Your task to perform on an android device: toggle airplane mode Image 0: 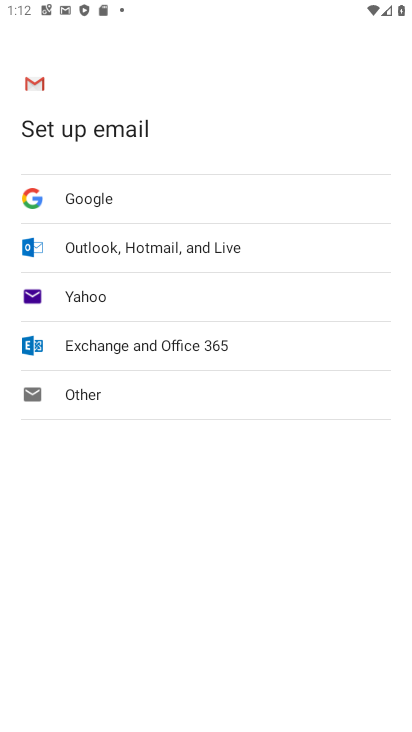
Step 0: press home button
Your task to perform on an android device: toggle airplane mode Image 1: 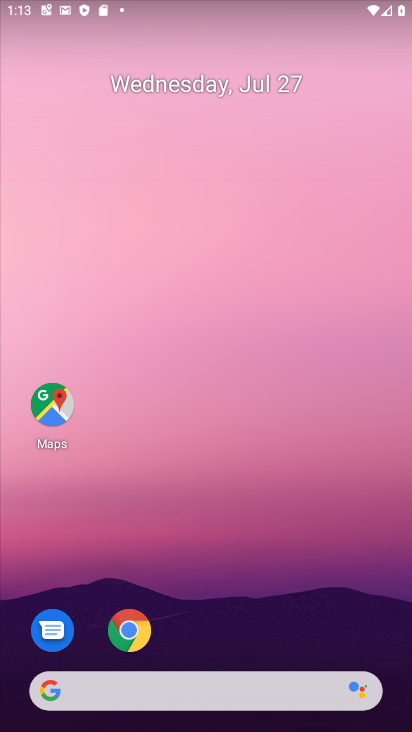
Step 1: drag from (397, 718) to (369, 39)
Your task to perform on an android device: toggle airplane mode Image 2: 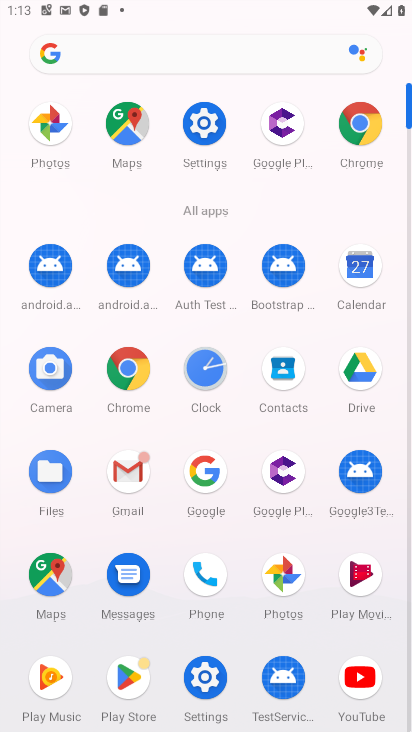
Step 2: click (200, 135)
Your task to perform on an android device: toggle airplane mode Image 3: 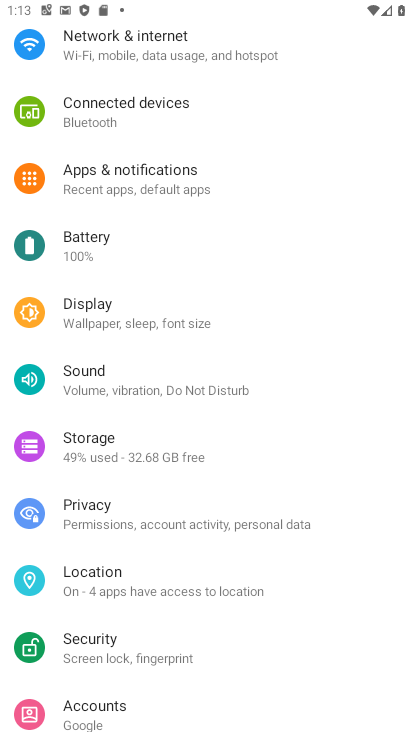
Step 3: drag from (329, 263) to (340, 437)
Your task to perform on an android device: toggle airplane mode Image 4: 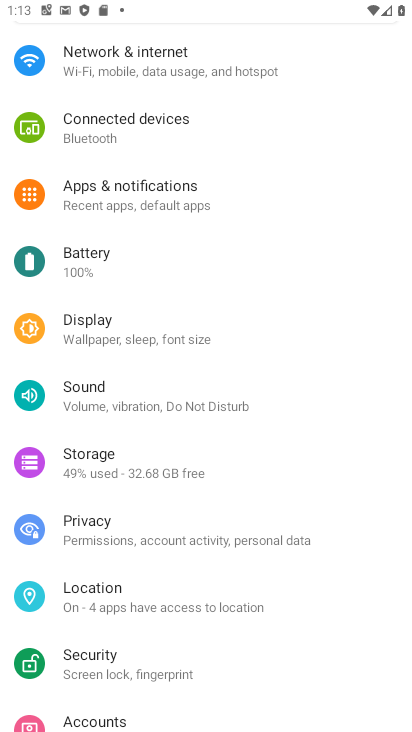
Step 4: drag from (323, 54) to (334, 475)
Your task to perform on an android device: toggle airplane mode Image 5: 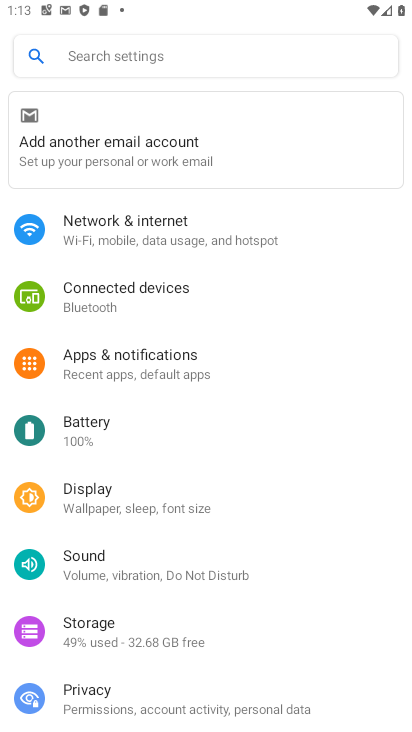
Step 5: click (139, 154)
Your task to perform on an android device: toggle airplane mode Image 6: 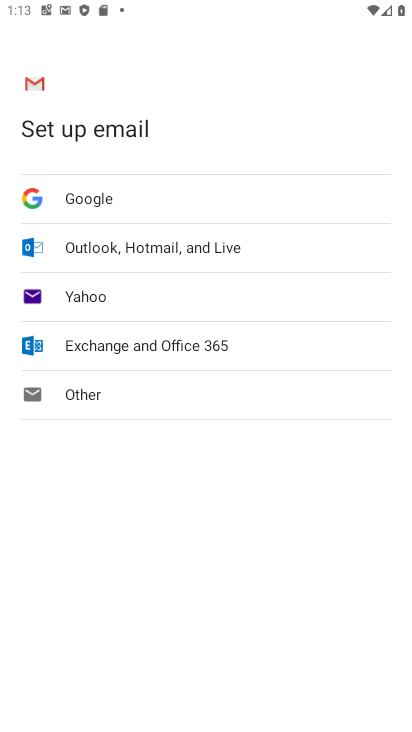
Step 6: press back button
Your task to perform on an android device: toggle airplane mode Image 7: 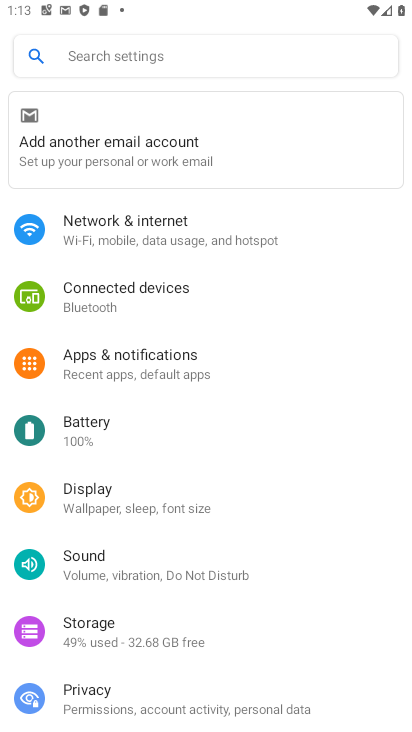
Step 7: click (102, 234)
Your task to perform on an android device: toggle airplane mode Image 8: 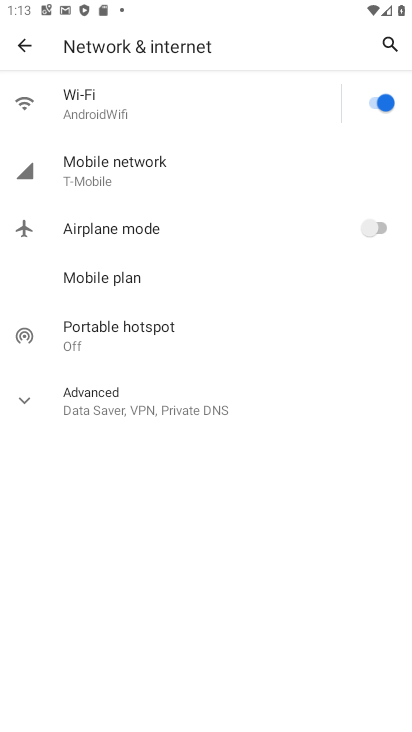
Step 8: click (378, 227)
Your task to perform on an android device: toggle airplane mode Image 9: 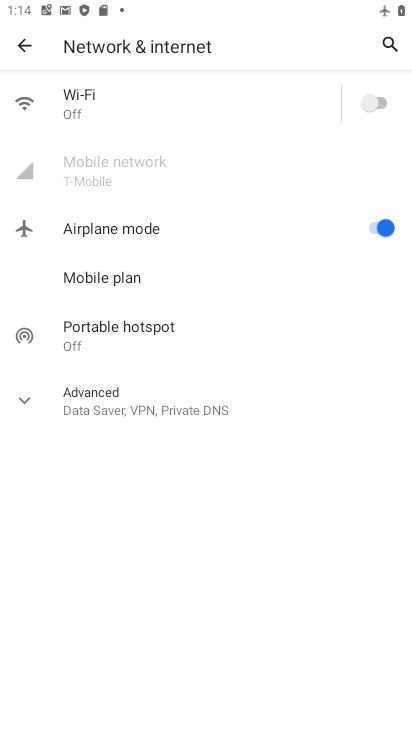
Step 9: task complete